Your task to perform on an android device: check out phone information Image 0: 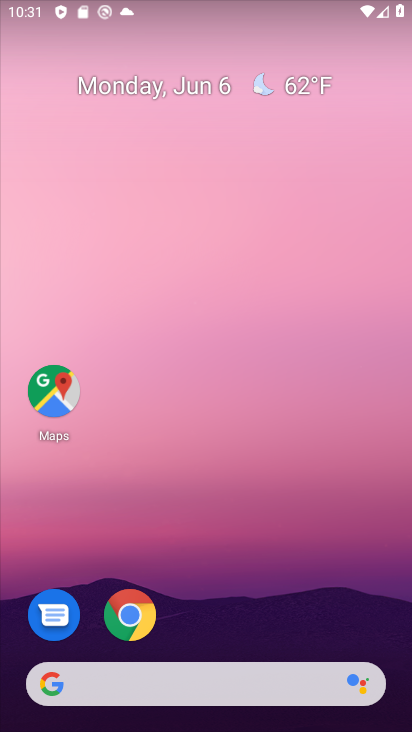
Step 0: drag from (191, 699) to (235, 78)
Your task to perform on an android device: check out phone information Image 1: 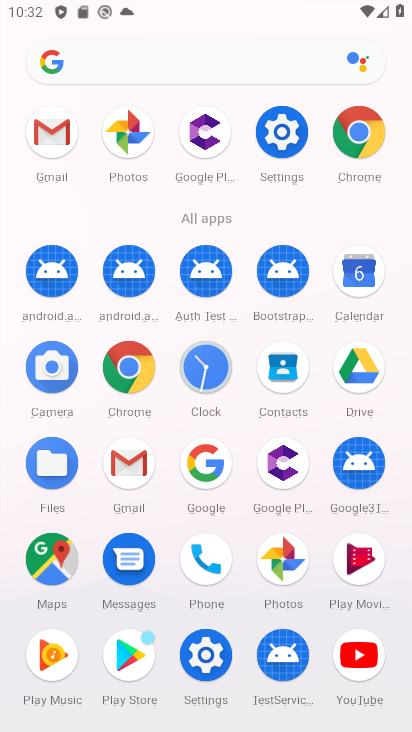
Step 1: click (277, 160)
Your task to perform on an android device: check out phone information Image 2: 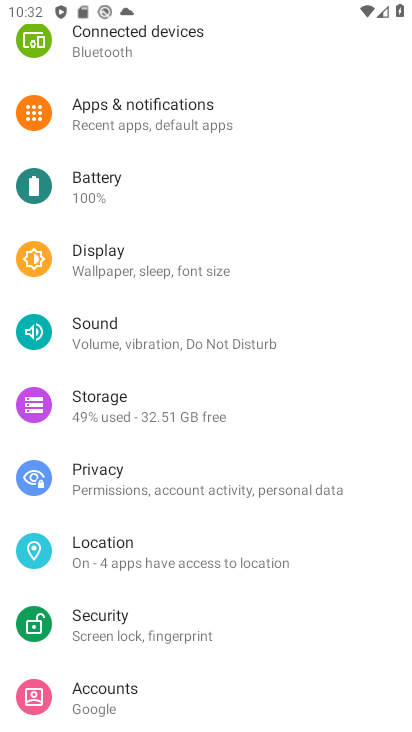
Step 2: drag from (323, 549) to (349, 2)
Your task to perform on an android device: check out phone information Image 3: 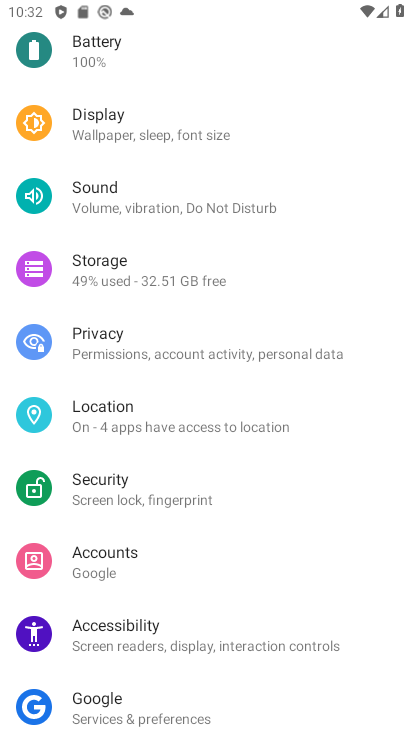
Step 3: drag from (185, 666) to (124, 10)
Your task to perform on an android device: check out phone information Image 4: 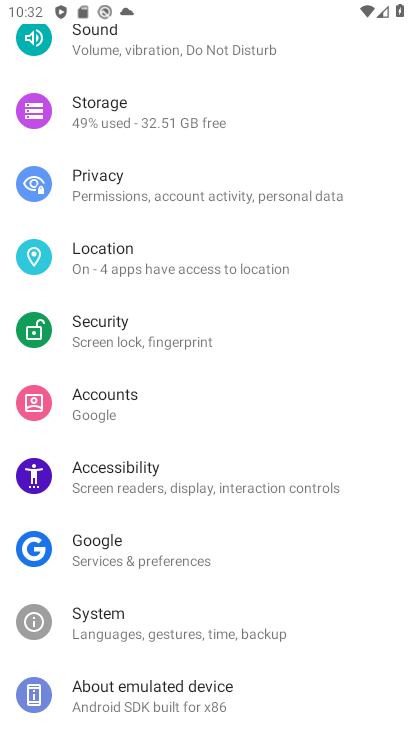
Step 4: click (169, 697)
Your task to perform on an android device: check out phone information Image 5: 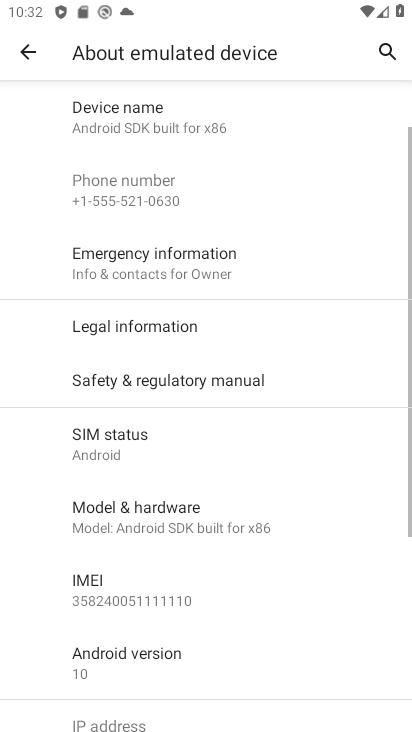
Step 5: task complete